Your task to perform on an android device: open the mobile data screen to see how much data has been used Image 0: 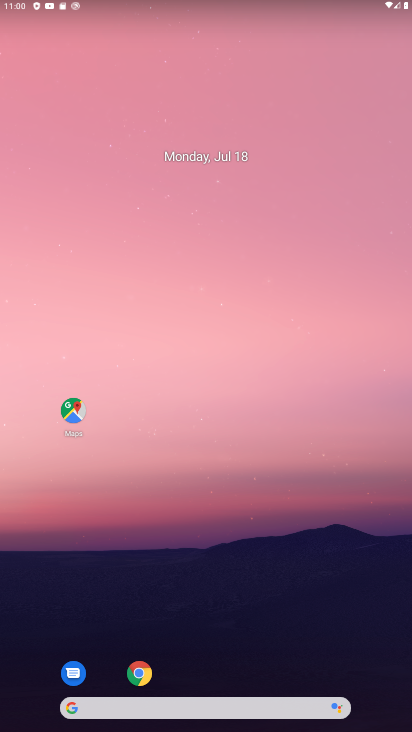
Step 0: press home button
Your task to perform on an android device: open the mobile data screen to see how much data has been used Image 1: 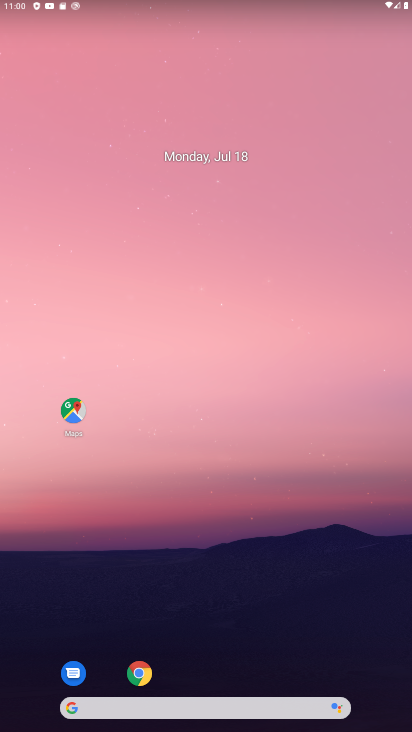
Step 1: drag from (210, 685) to (276, 4)
Your task to perform on an android device: open the mobile data screen to see how much data has been used Image 2: 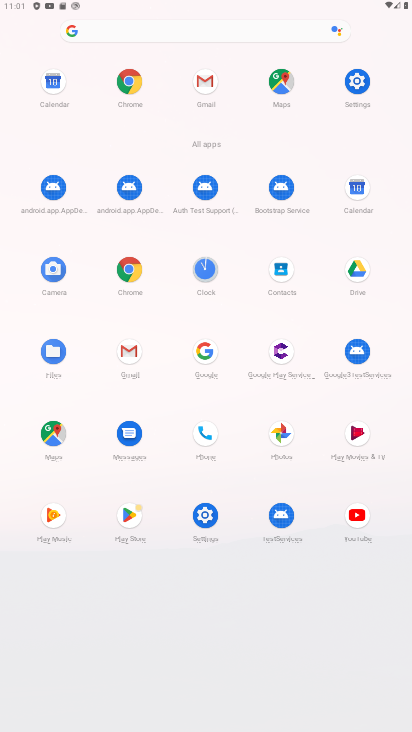
Step 2: click (354, 74)
Your task to perform on an android device: open the mobile data screen to see how much data has been used Image 3: 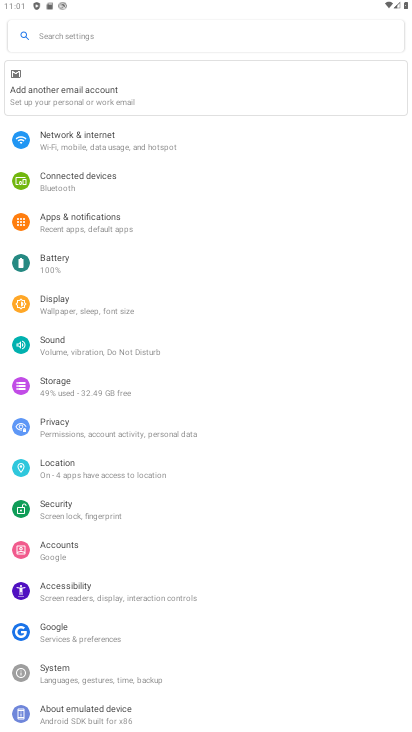
Step 3: click (102, 135)
Your task to perform on an android device: open the mobile data screen to see how much data has been used Image 4: 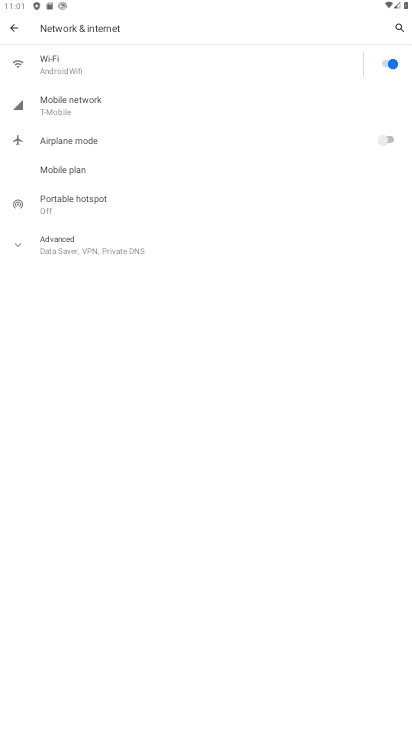
Step 4: click (95, 106)
Your task to perform on an android device: open the mobile data screen to see how much data has been used Image 5: 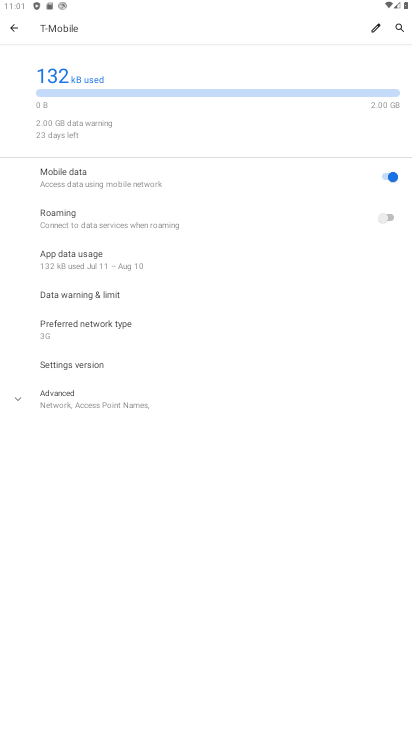
Step 5: click (111, 256)
Your task to perform on an android device: open the mobile data screen to see how much data has been used Image 6: 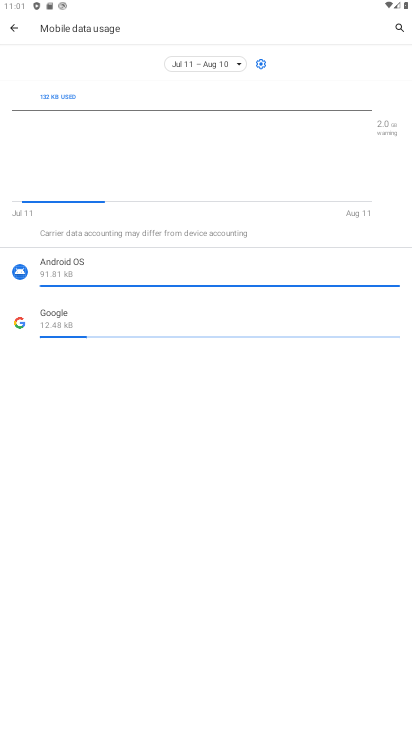
Step 6: task complete